Your task to perform on an android device: Open the calendar app, open the side menu, and click the "Day" option Image 0: 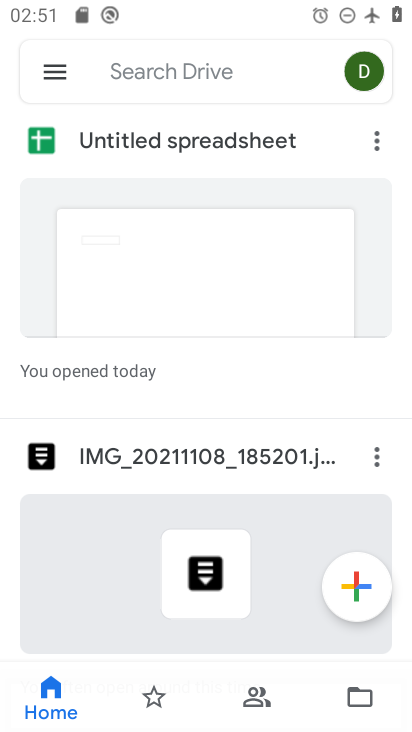
Step 0: press home button
Your task to perform on an android device: Open the calendar app, open the side menu, and click the "Day" option Image 1: 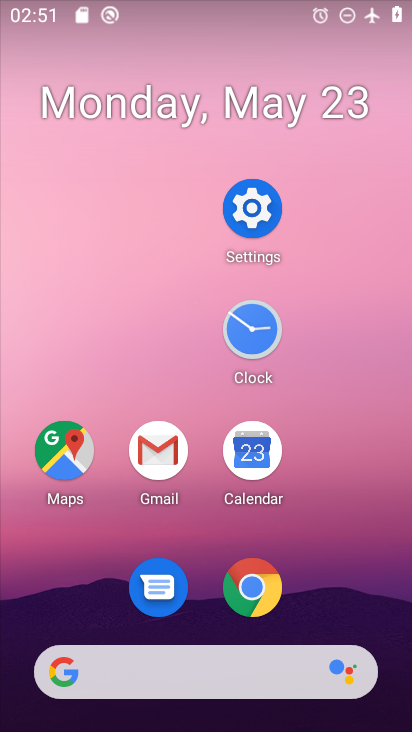
Step 1: click (257, 488)
Your task to perform on an android device: Open the calendar app, open the side menu, and click the "Day" option Image 2: 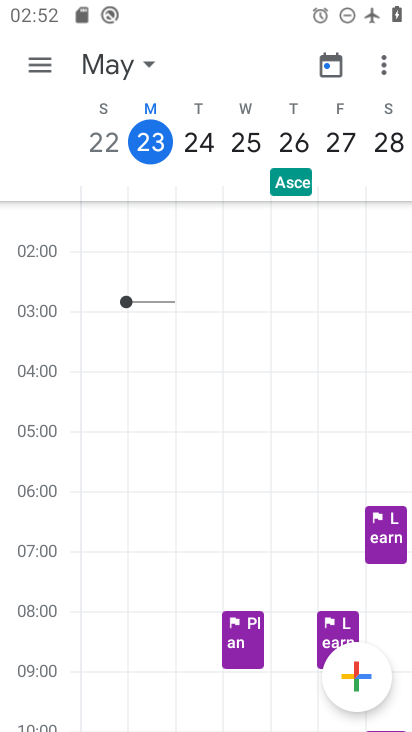
Step 2: click (43, 70)
Your task to perform on an android device: Open the calendar app, open the side menu, and click the "Day" option Image 3: 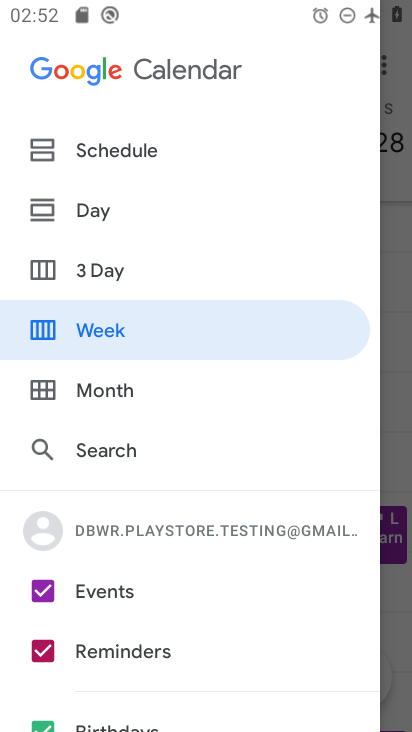
Step 3: click (119, 206)
Your task to perform on an android device: Open the calendar app, open the side menu, and click the "Day" option Image 4: 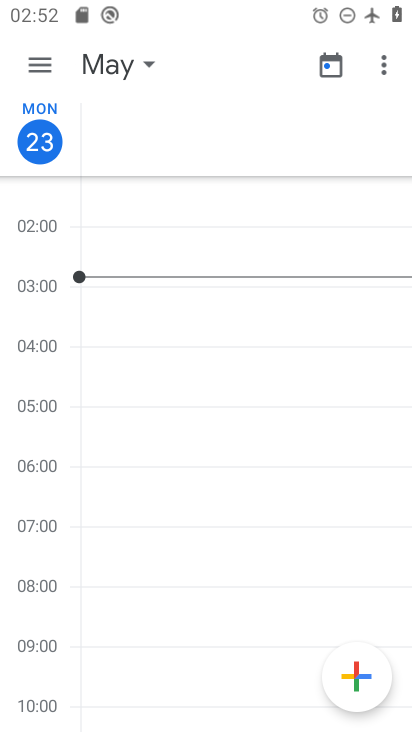
Step 4: task complete